Your task to perform on an android device: Open my contact list Image 0: 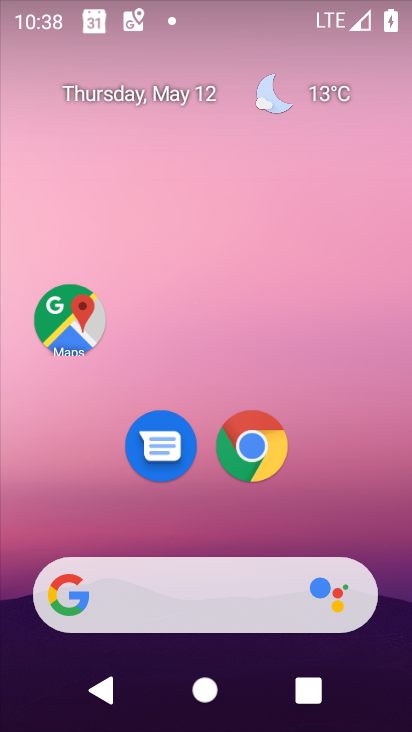
Step 0: drag from (266, 576) to (197, 1)
Your task to perform on an android device: Open my contact list Image 1: 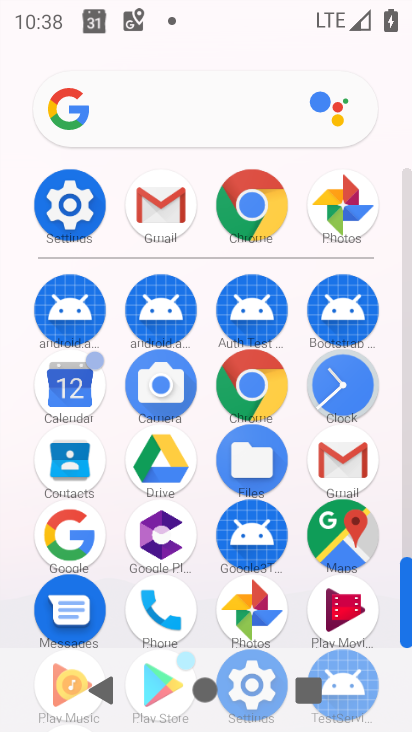
Step 1: click (83, 475)
Your task to perform on an android device: Open my contact list Image 2: 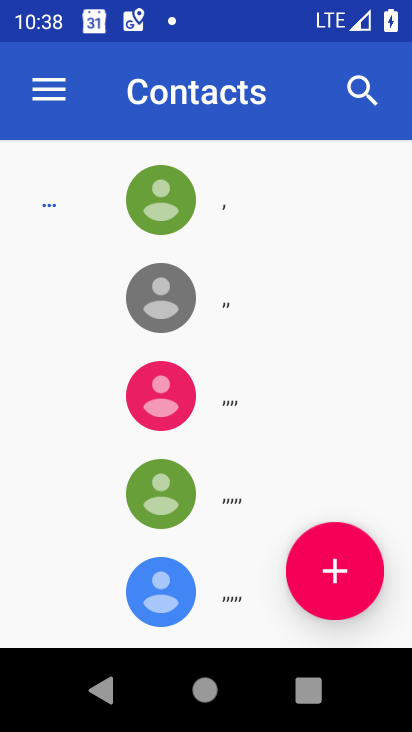
Step 2: task complete